Your task to perform on an android device: Open calendar and show me the second week of next month Image 0: 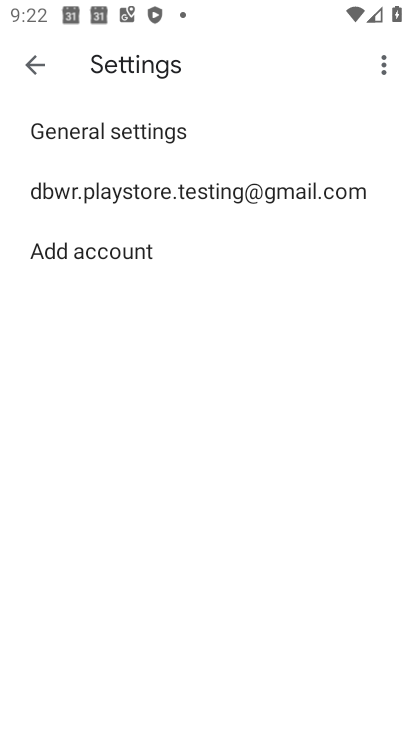
Step 0: press home button
Your task to perform on an android device: Open calendar and show me the second week of next month Image 1: 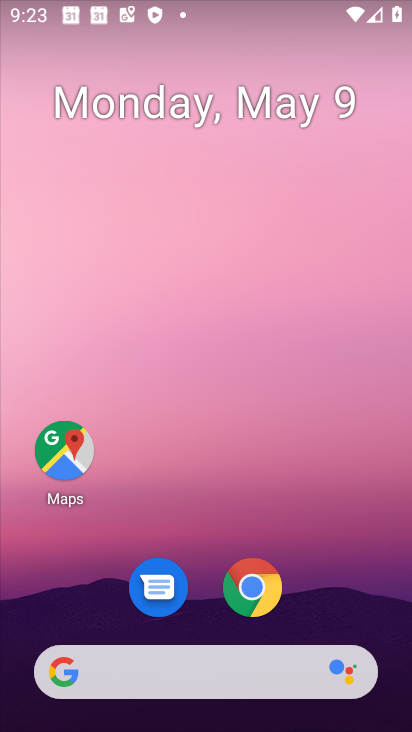
Step 1: click (276, 101)
Your task to perform on an android device: Open calendar and show me the second week of next month Image 2: 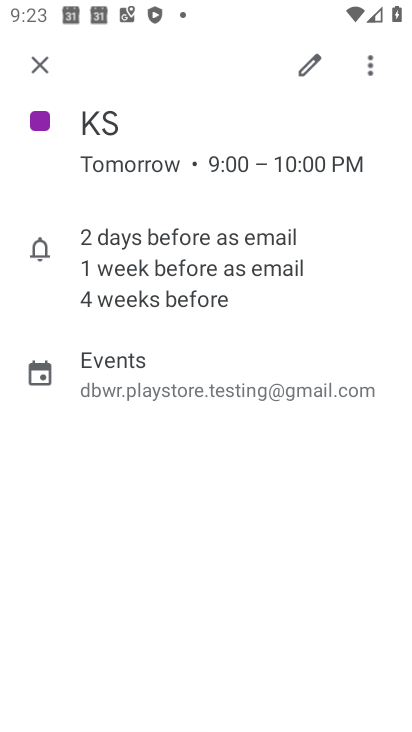
Step 2: click (63, 71)
Your task to perform on an android device: Open calendar and show me the second week of next month Image 3: 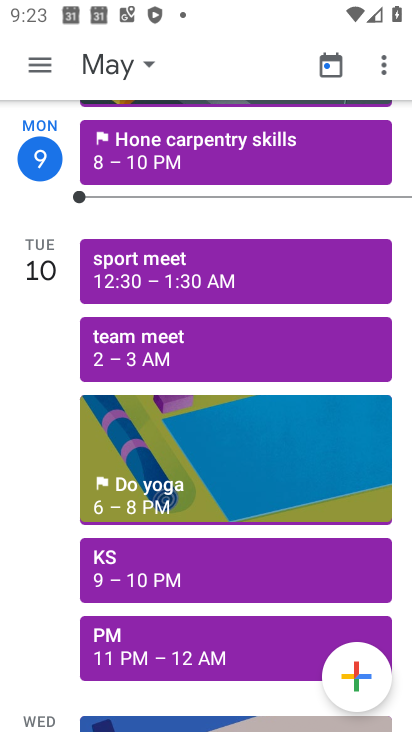
Step 3: click (113, 66)
Your task to perform on an android device: Open calendar and show me the second week of next month Image 4: 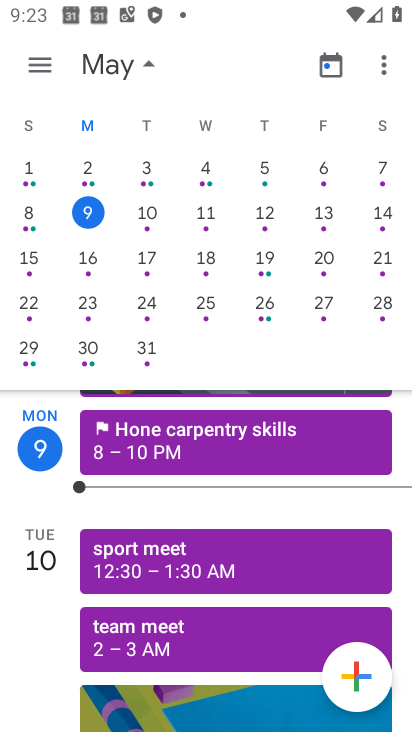
Step 4: task complete